Your task to perform on an android device: What is the recent news? Image 0: 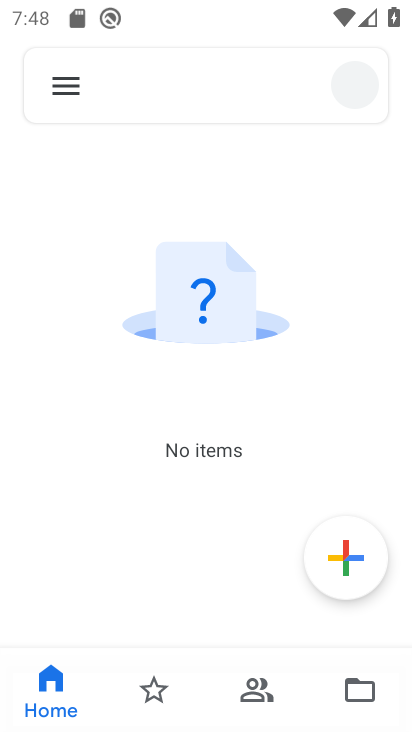
Step 0: press home button
Your task to perform on an android device: What is the recent news? Image 1: 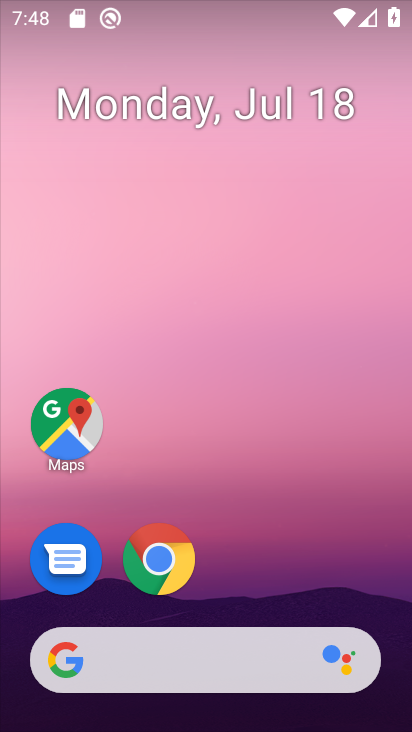
Step 1: task complete